Your task to perform on an android device: Do I have any events this weekend? Image 0: 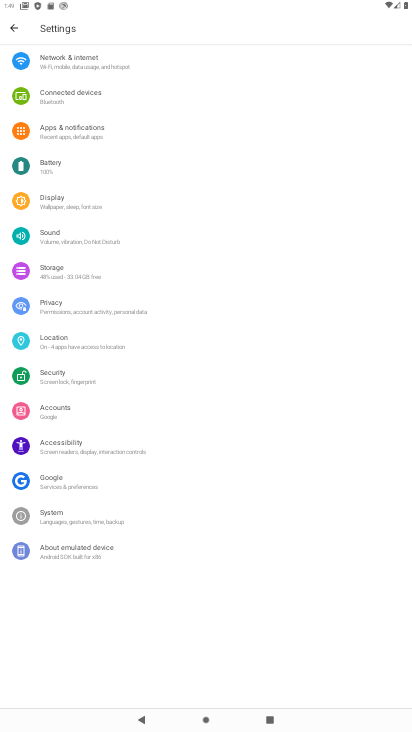
Step 0: press home button
Your task to perform on an android device: Do I have any events this weekend? Image 1: 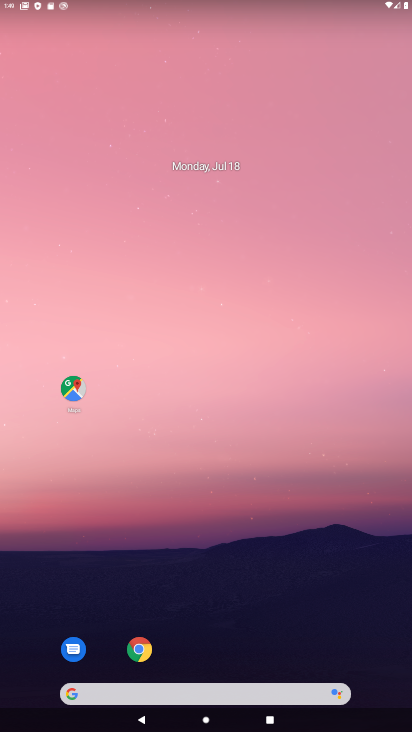
Step 1: drag from (295, 552) to (227, 0)
Your task to perform on an android device: Do I have any events this weekend? Image 2: 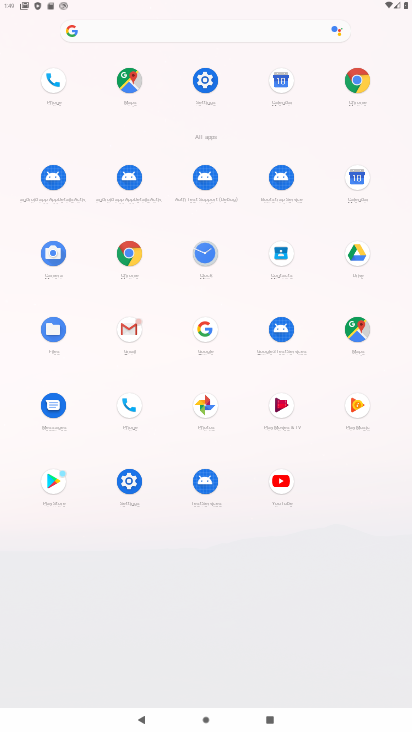
Step 2: click (348, 184)
Your task to perform on an android device: Do I have any events this weekend? Image 3: 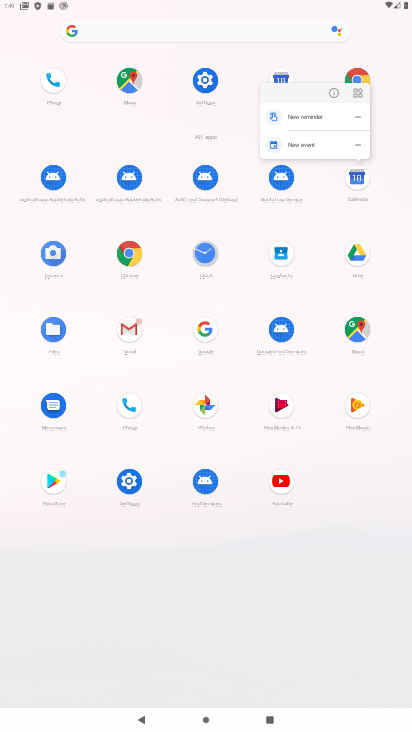
Step 3: click (359, 180)
Your task to perform on an android device: Do I have any events this weekend? Image 4: 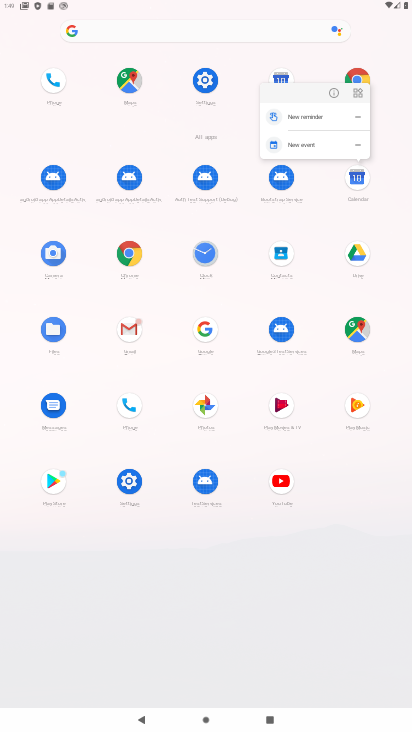
Step 4: click (359, 180)
Your task to perform on an android device: Do I have any events this weekend? Image 5: 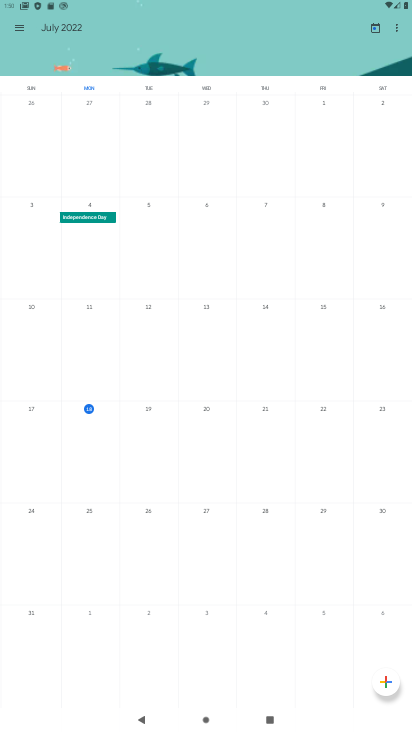
Step 5: task complete